Your task to perform on an android device: create a new album in the google photos Image 0: 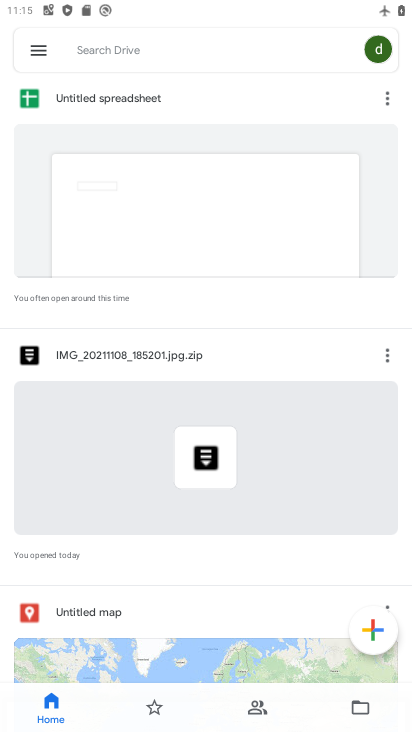
Step 0: press home button
Your task to perform on an android device: create a new album in the google photos Image 1: 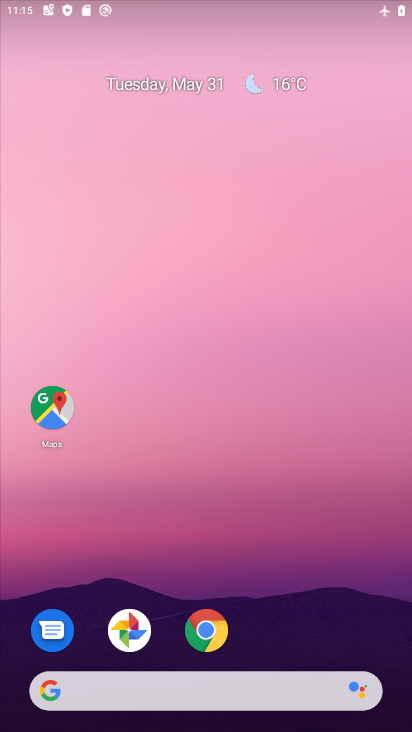
Step 1: drag from (288, 591) to (260, 205)
Your task to perform on an android device: create a new album in the google photos Image 2: 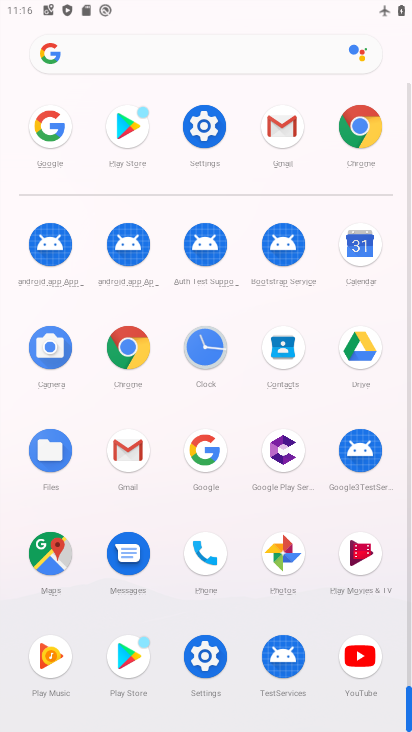
Step 2: click (283, 553)
Your task to perform on an android device: create a new album in the google photos Image 3: 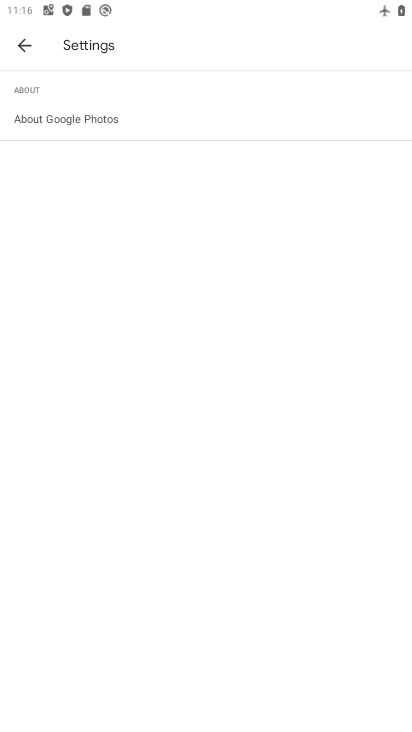
Step 3: click (24, 46)
Your task to perform on an android device: create a new album in the google photos Image 4: 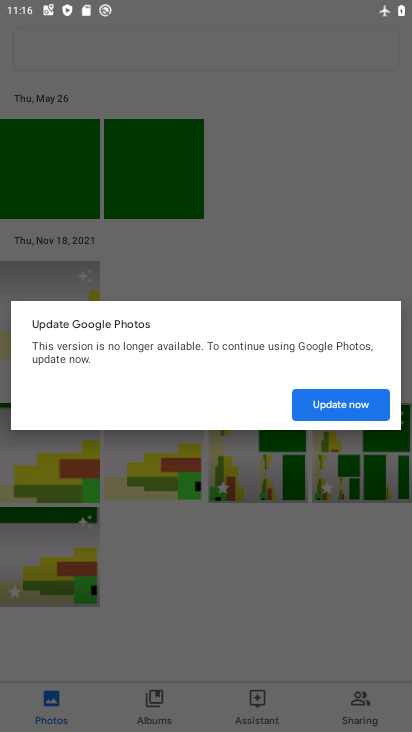
Step 4: click (24, 46)
Your task to perform on an android device: create a new album in the google photos Image 5: 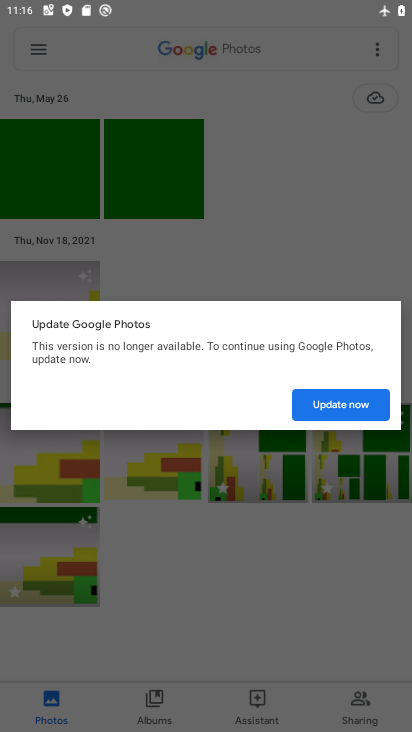
Step 5: click (331, 405)
Your task to perform on an android device: create a new album in the google photos Image 6: 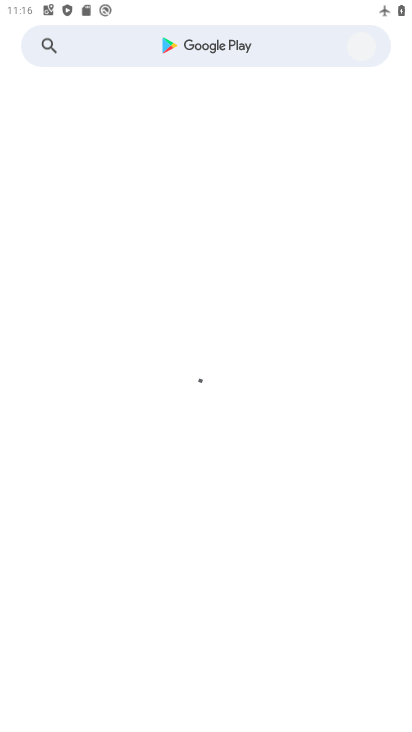
Step 6: press back button
Your task to perform on an android device: create a new album in the google photos Image 7: 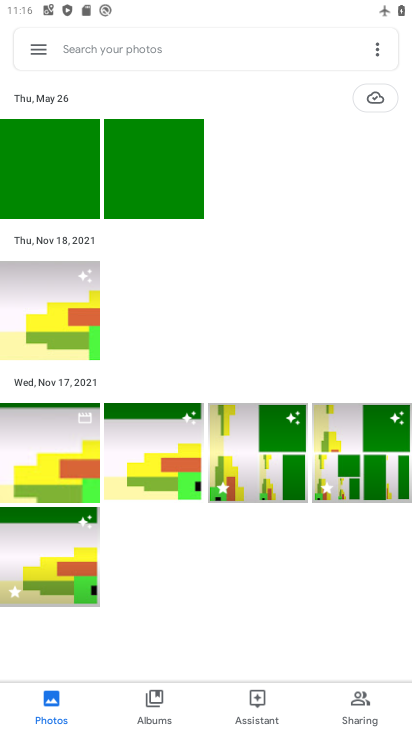
Step 7: click (41, 277)
Your task to perform on an android device: create a new album in the google photos Image 8: 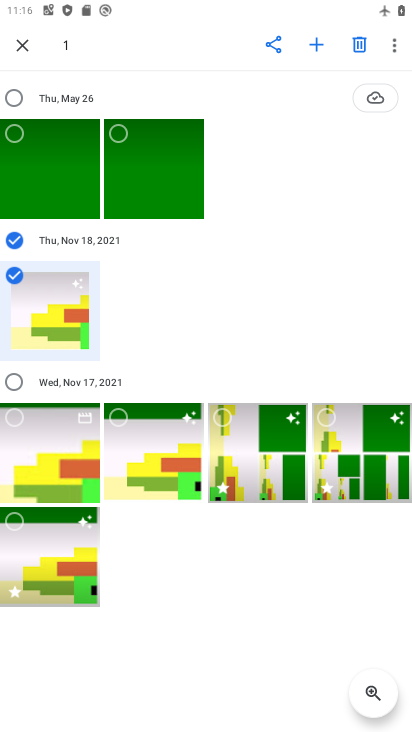
Step 8: click (315, 40)
Your task to perform on an android device: create a new album in the google photos Image 9: 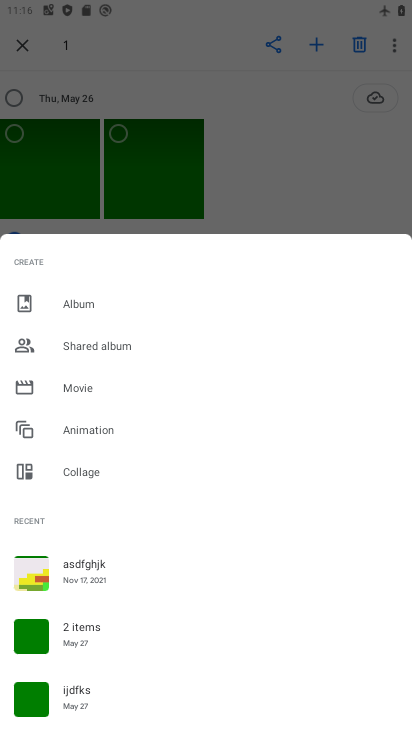
Step 9: click (69, 305)
Your task to perform on an android device: create a new album in the google photos Image 10: 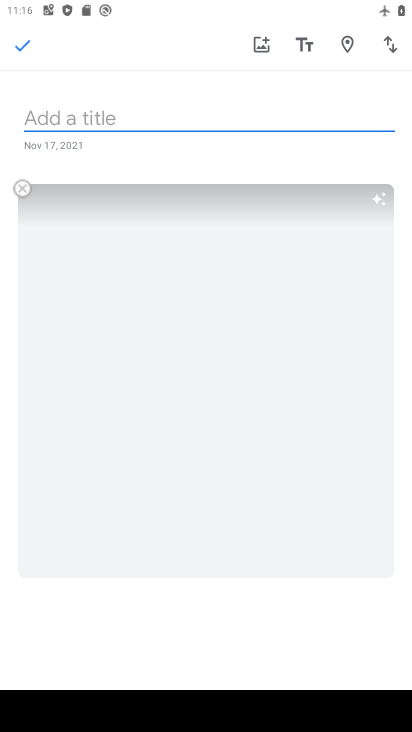
Step 10: click (132, 104)
Your task to perform on an android device: create a new album in the google photos Image 11: 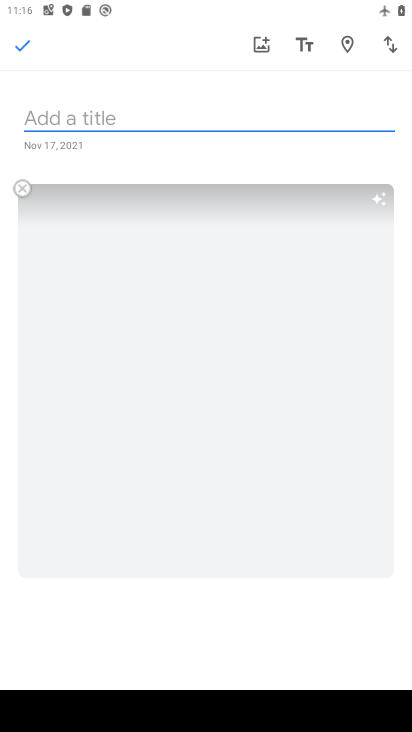
Step 11: type "sdfghjkl"
Your task to perform on an android device: create a new album in the google photos Image 12: 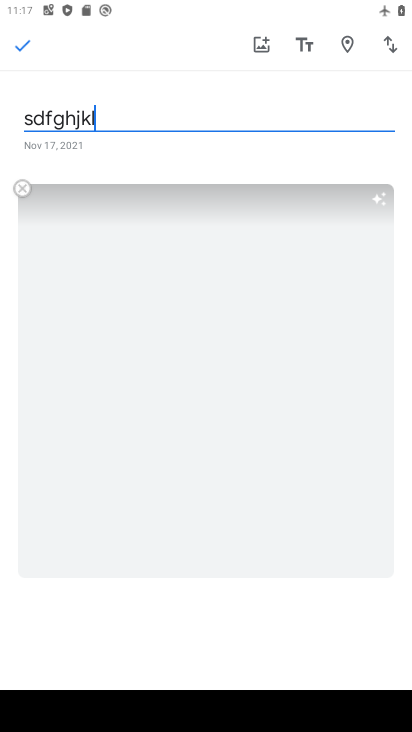
Step 12: click (21, 25)
Your task to perform on an android device: create a new album in the google photos Image 13: 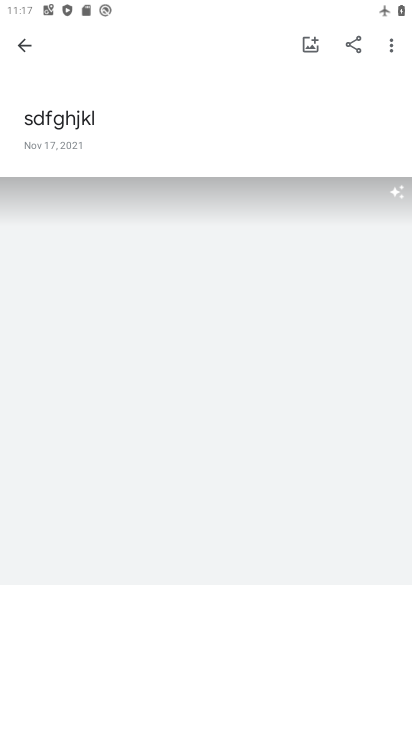
Step 13: task complete